Your task to perform on an android device: Search for vegetarian restaurants on Maps Image 0: 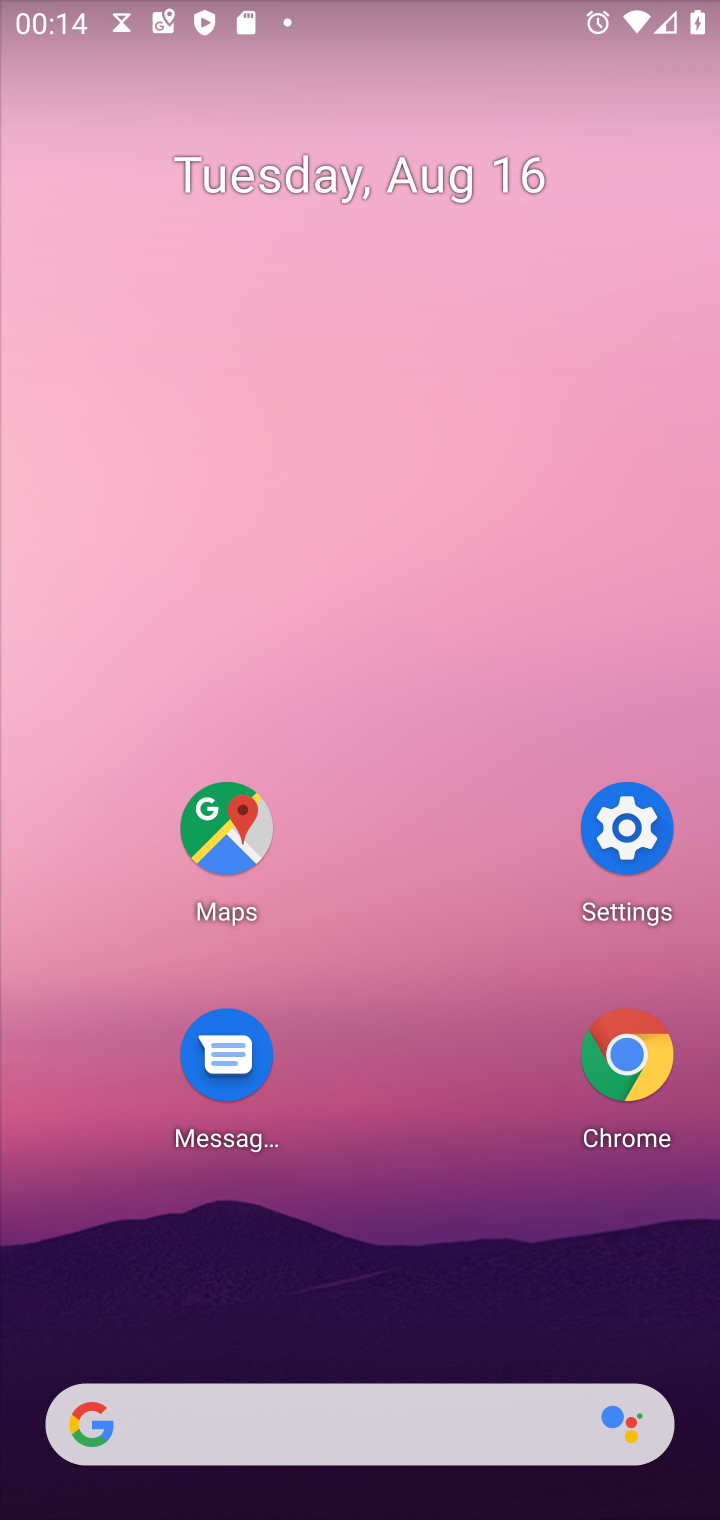
Step 0: press home button
Your task to perform on an android device: Search for vegetarian restaurants on Maps Image 1: 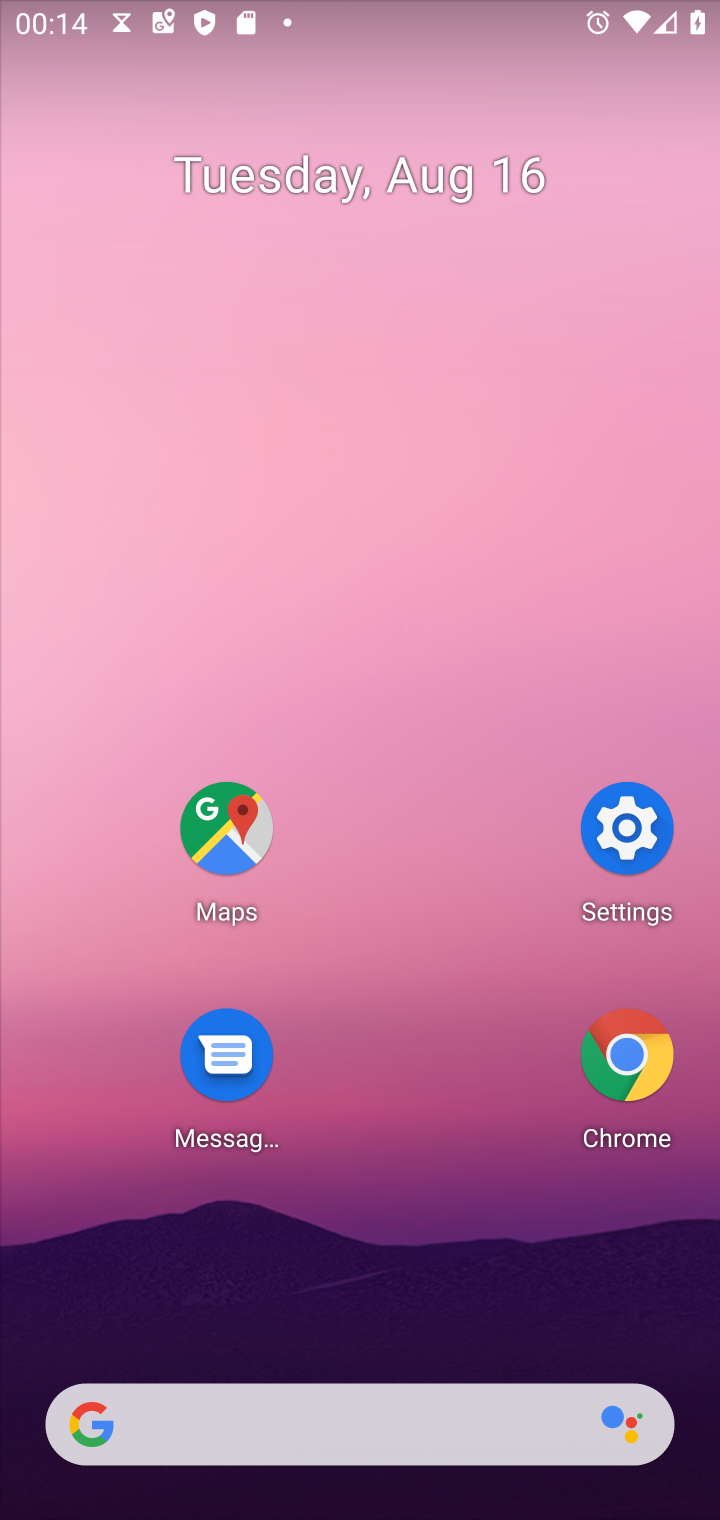
Step 1: click (234, 824)
Your task to perform on an android device: Search for vegetarian restaurants on Maps Image 2: 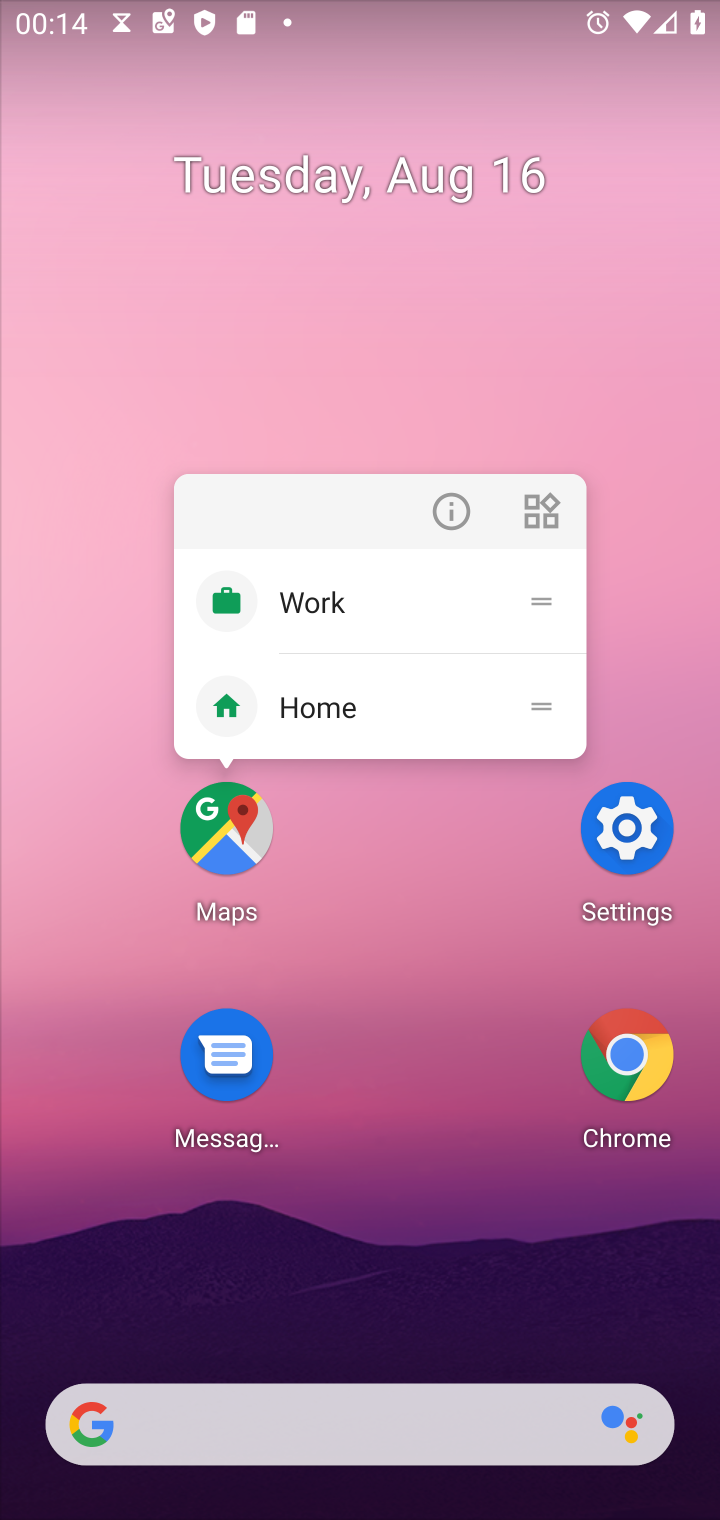
Step 2: click (219, 797)
Your task to perform on an android device: Search for vegetarian restaurants on Maps Image 3: 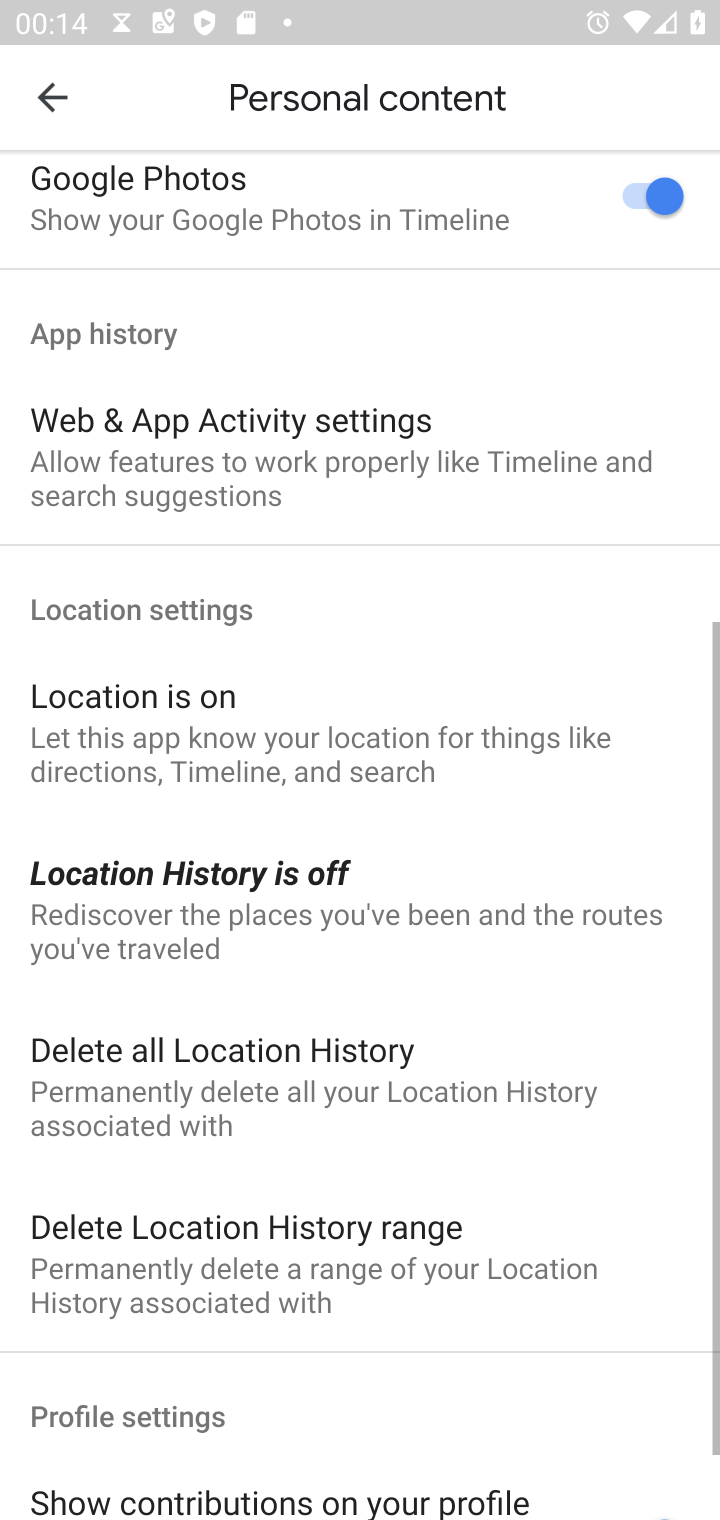
Step 3: press back button
Your task to perform on an android device: Search for vegetarian restaurants on Maps Image 4: 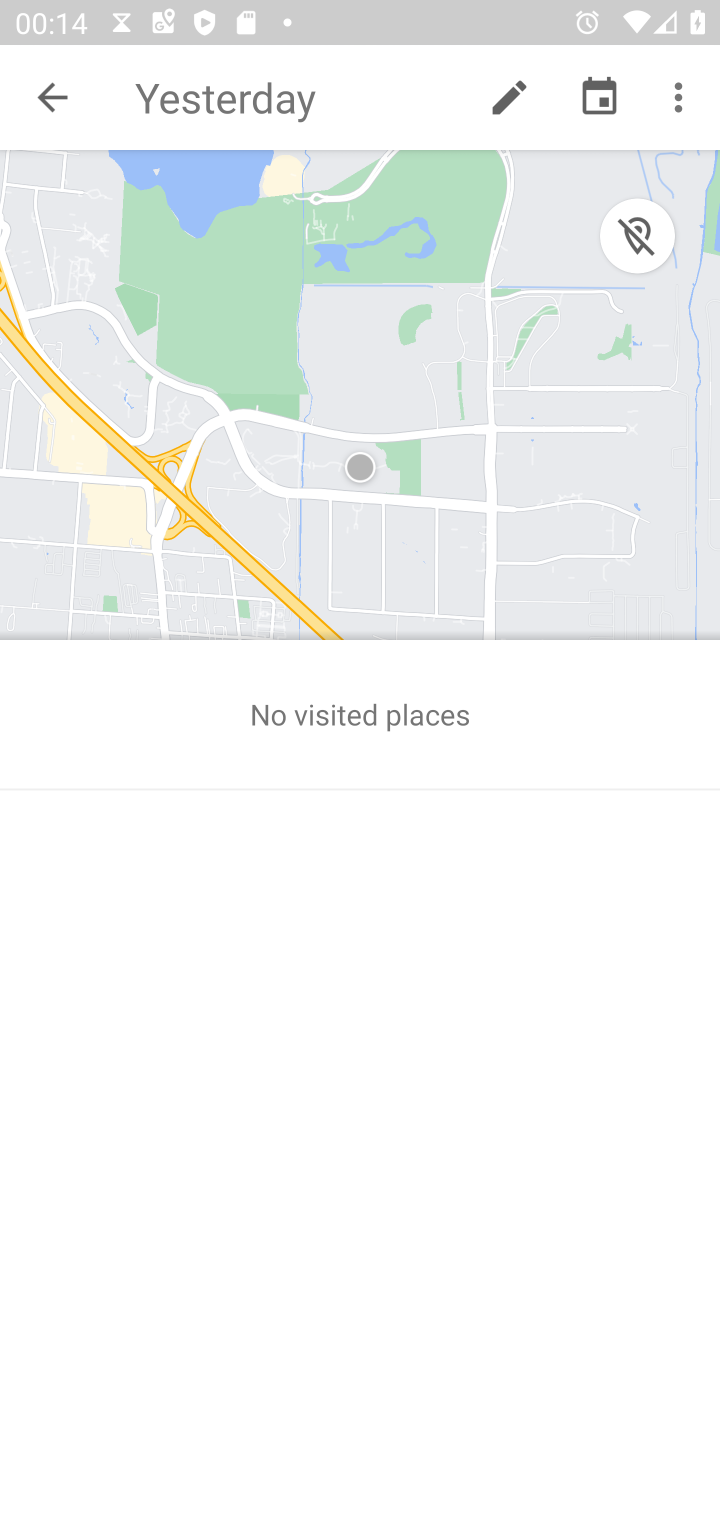
Step 4: press back button
Your task to perform on an android device: Search for vegetarian restaurants on Maps Image 5: 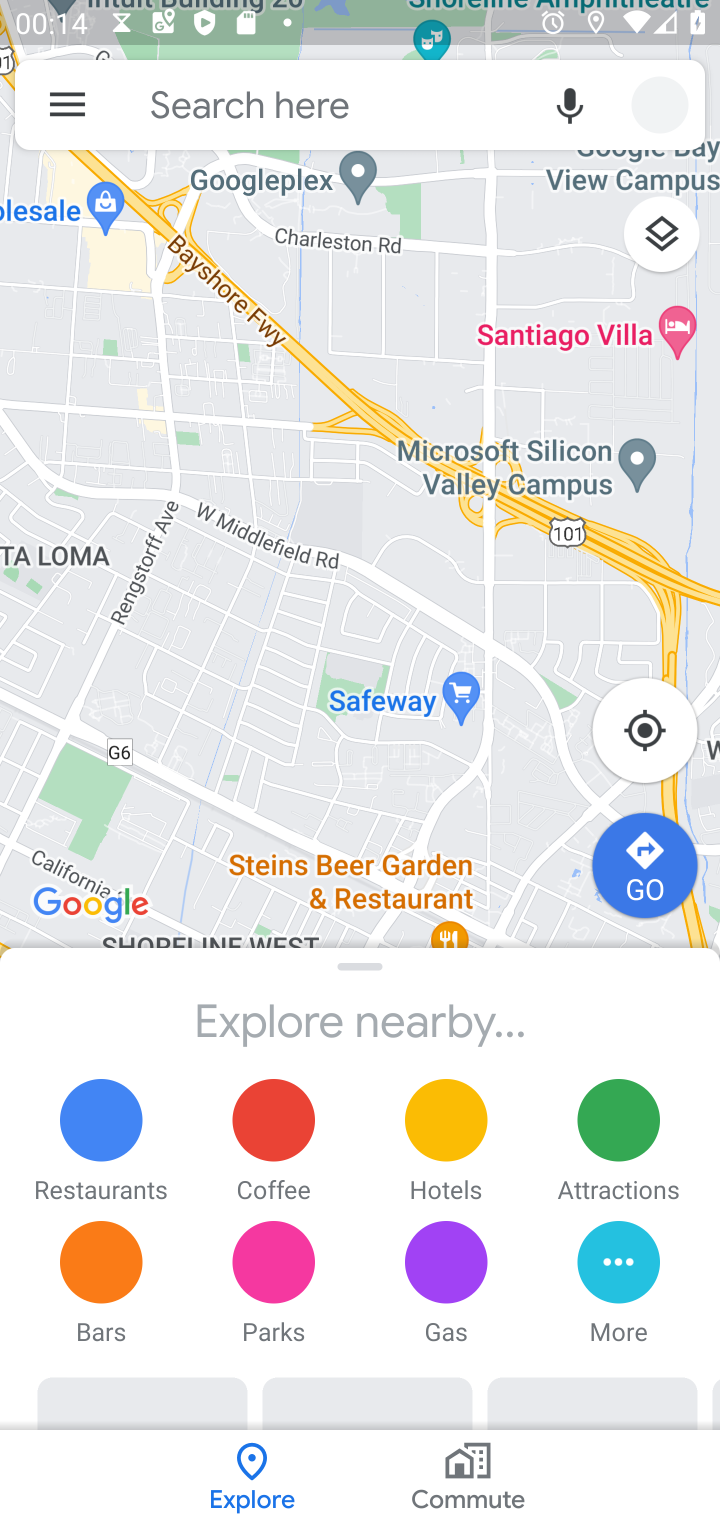
Step 5: click (248, 101)
Your task to perform on an android device: Search for vegetarian restaurants on Maps Image 6: 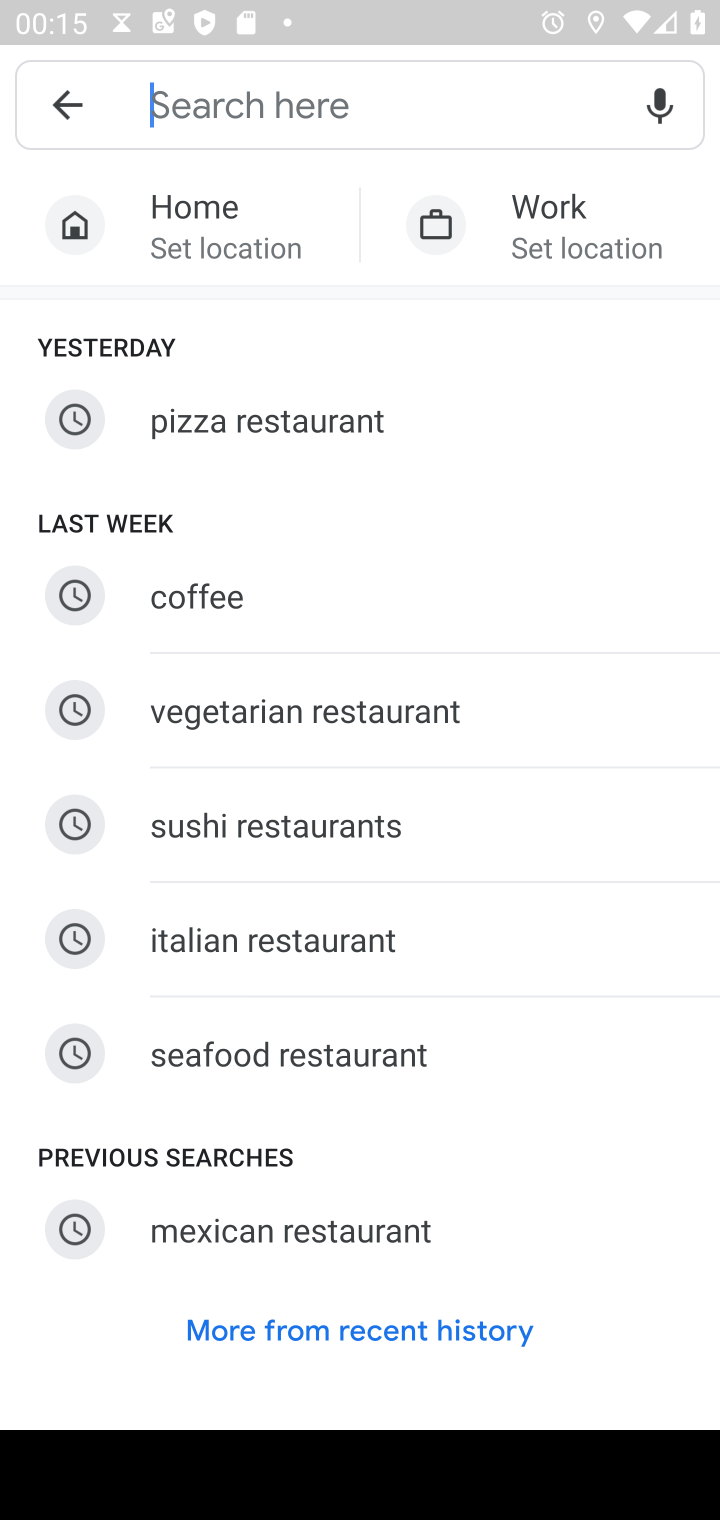
Step 6: type "vegetarian restaurants"
Your task to perform on an android device: Search for vegetarian restaurants on Maps Image 7: 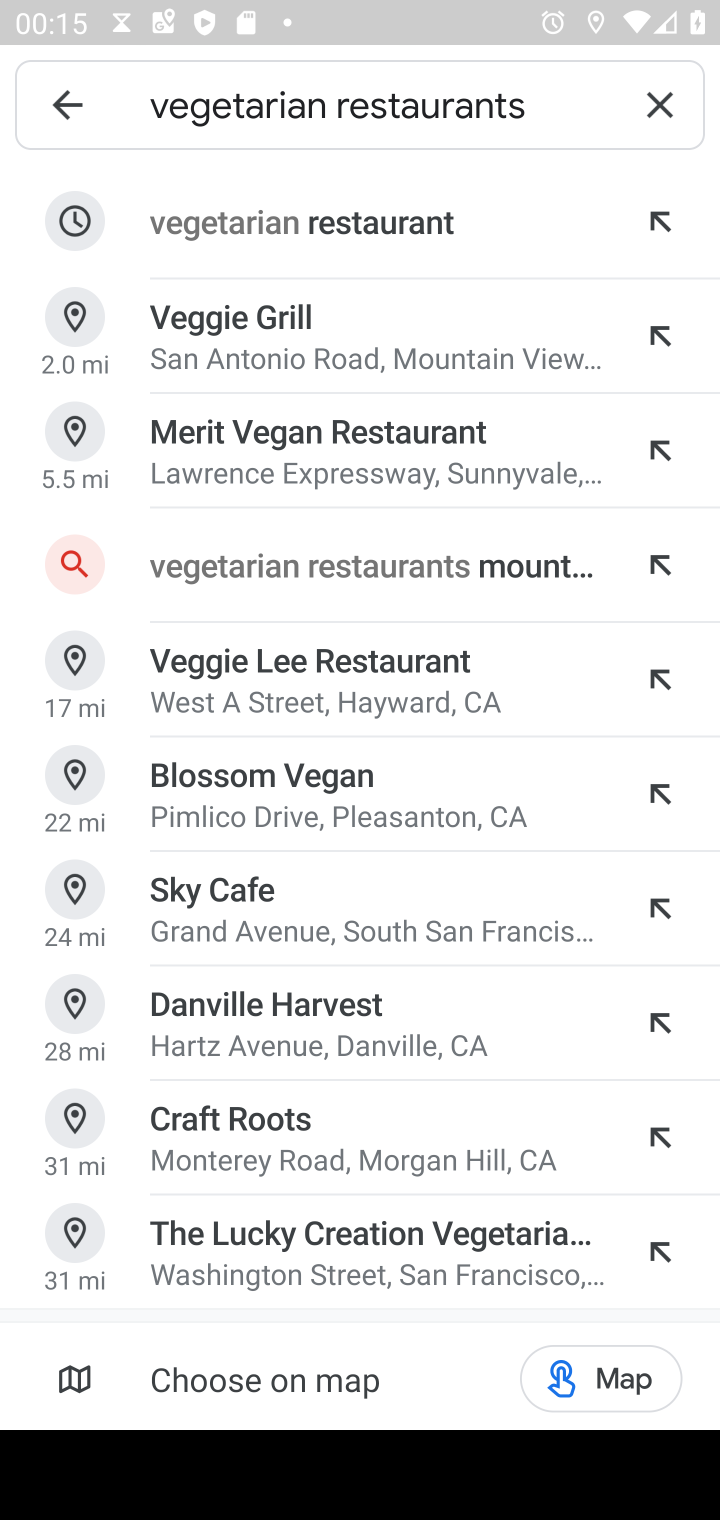
Step 7: click (343, 249)
Your task to perform on an android device: Search for vegetarian restaurants on Maps Image 8: 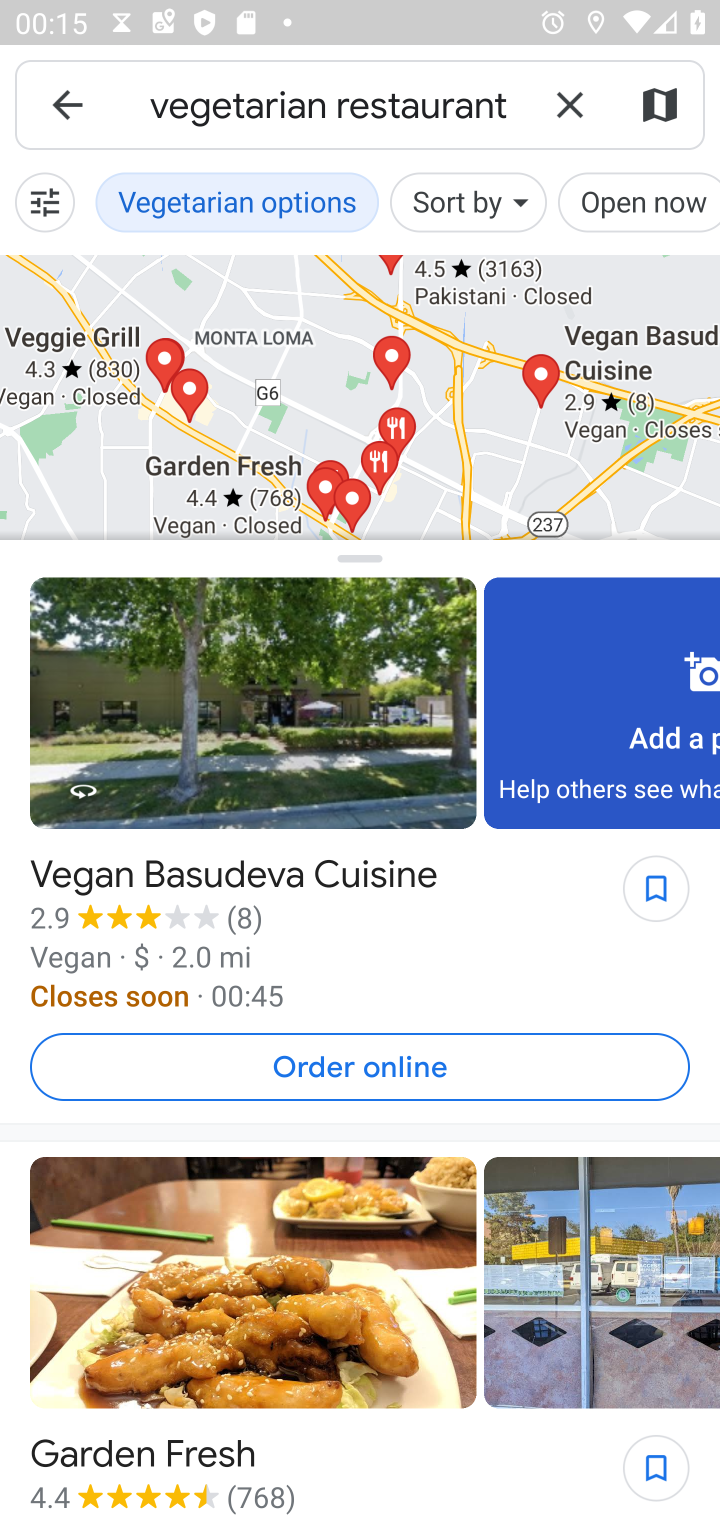
Step 8: task complete